Your task to perform on an android device: toggle priority inbox in the gmail app Image 0: 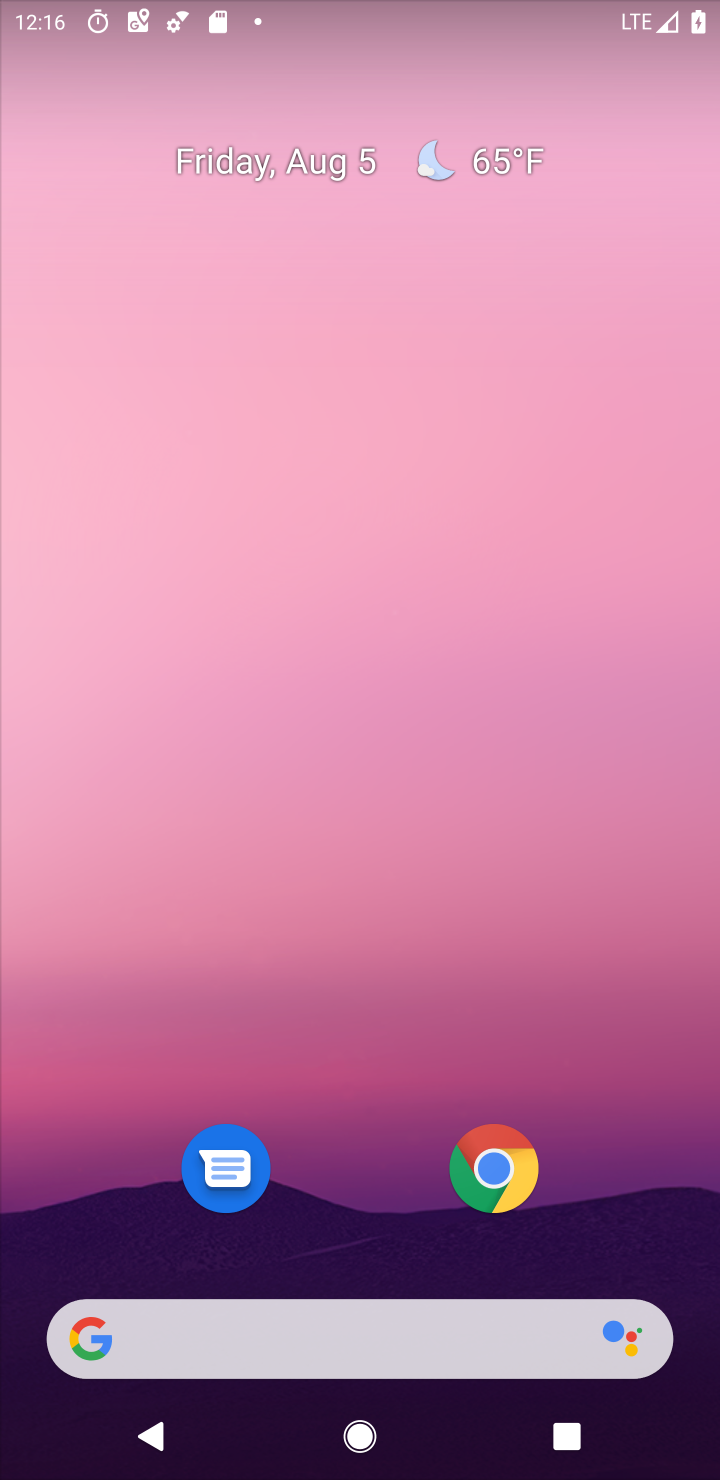
Step 0: drag from (327, 985) to (443, 6)
Your task to perform on an android device: toggle priority inbox in the gmail app Image 1: 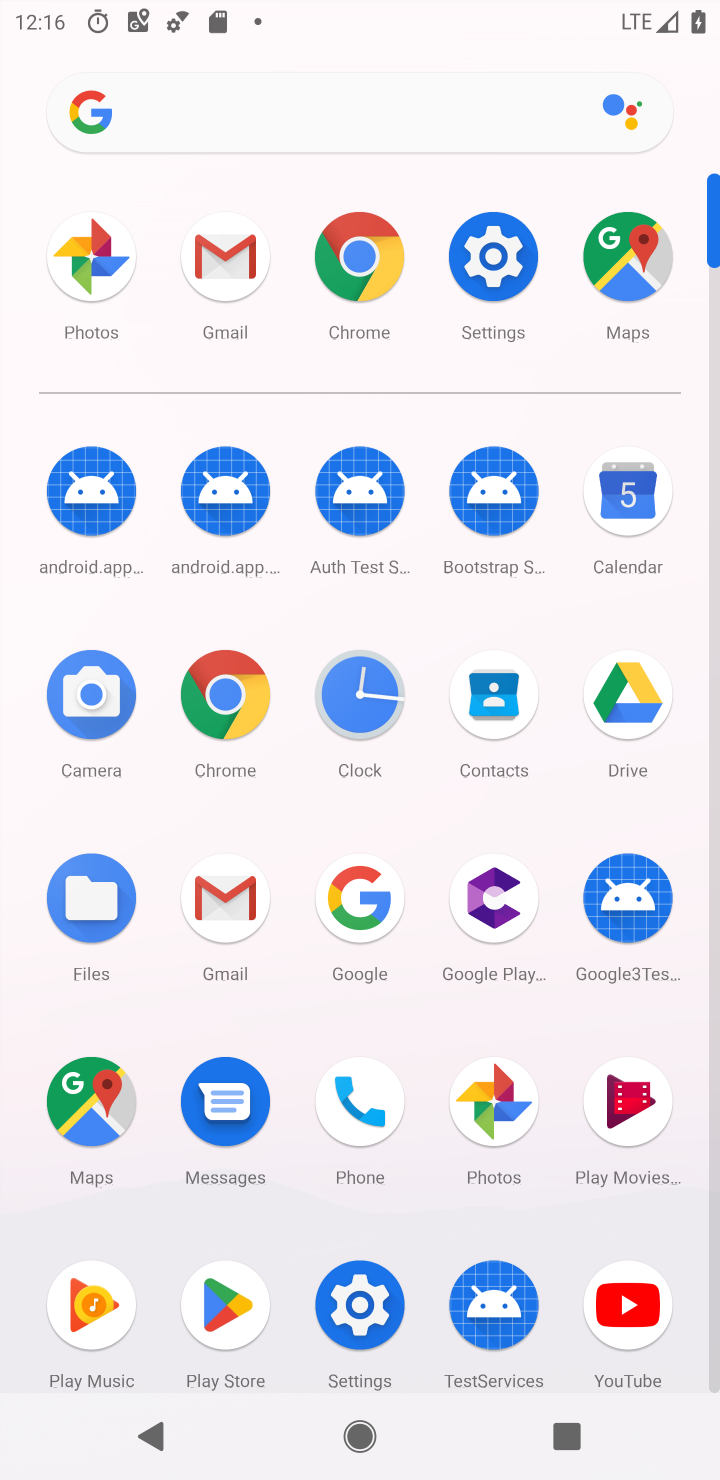
Step 1: click (205, 913)
Your task to perform on an android device: toggle priority inbox in the gmail app Image 2: 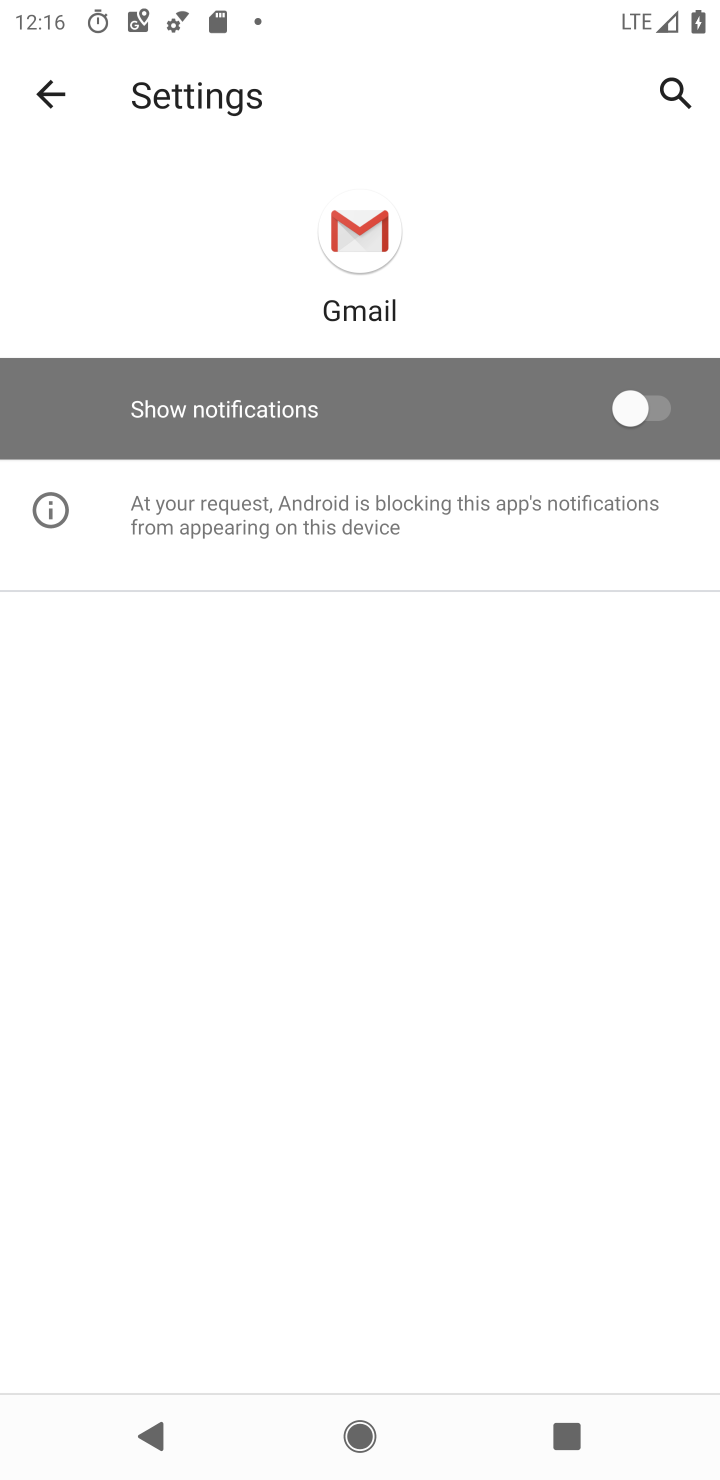
Step 2: click (40, 105)
Your task to perform on an android device: toggle priority inbox in the gmail app Image 3: 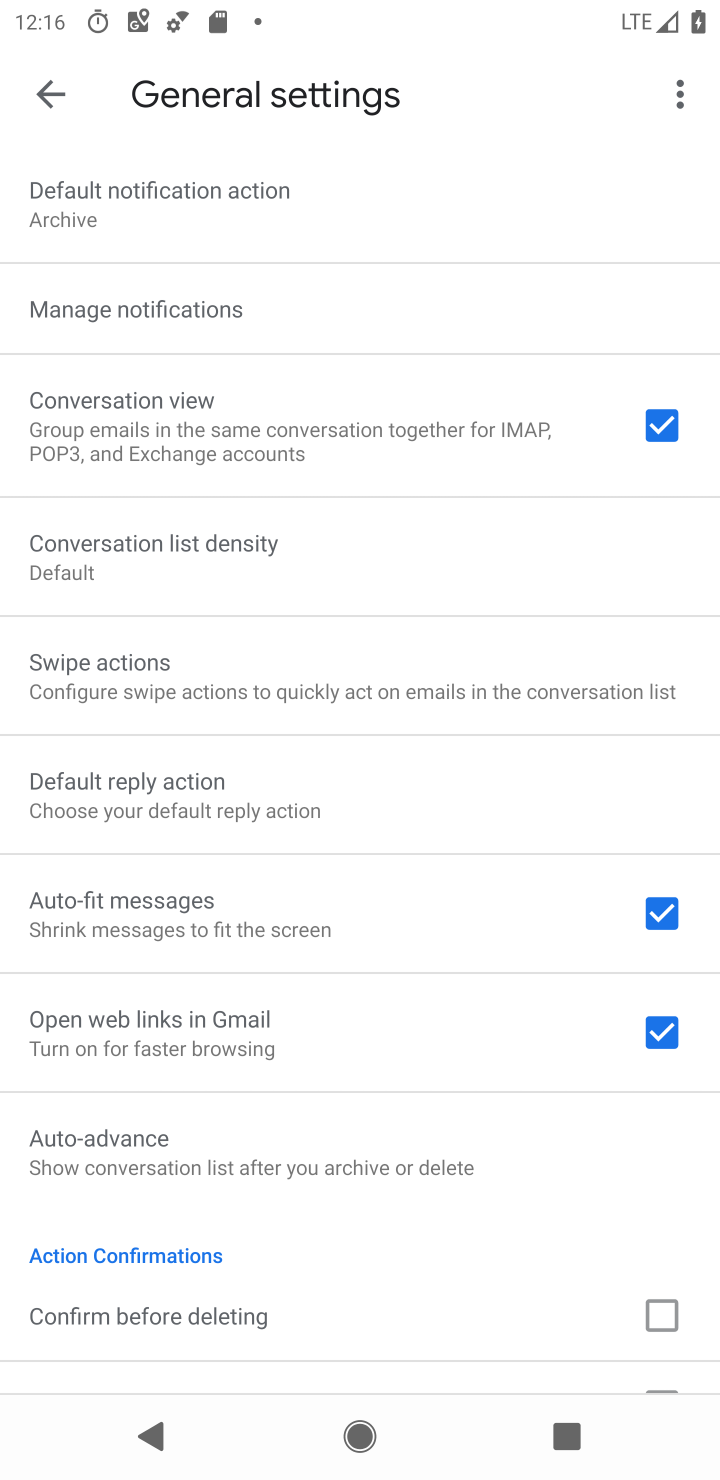
Step 3: click (57, 88)
Your task to perform on an android device: toggle priority inbox in the gmail app Image 4: 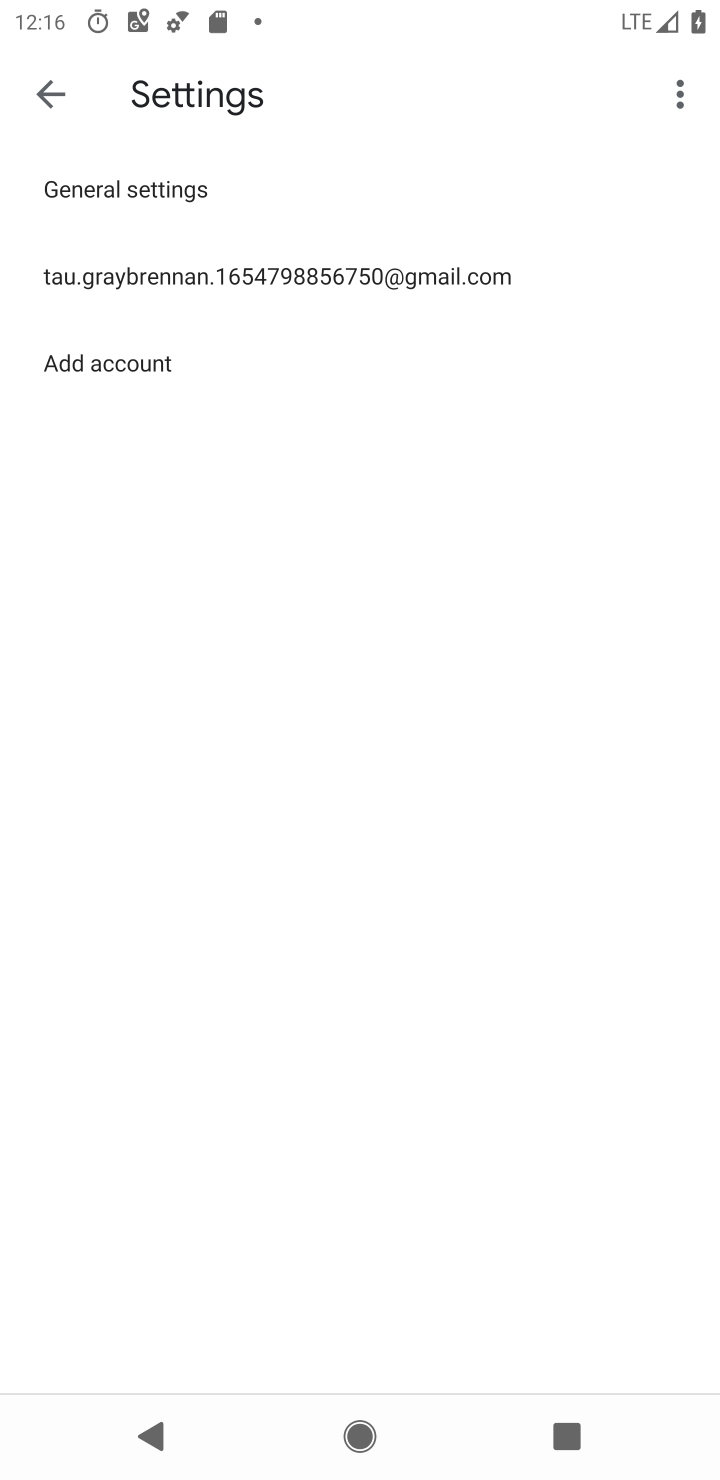
Step 4: click (326, 305)
Your task to perform on an android device: toggle priority inbox in the gmail app Image 5: 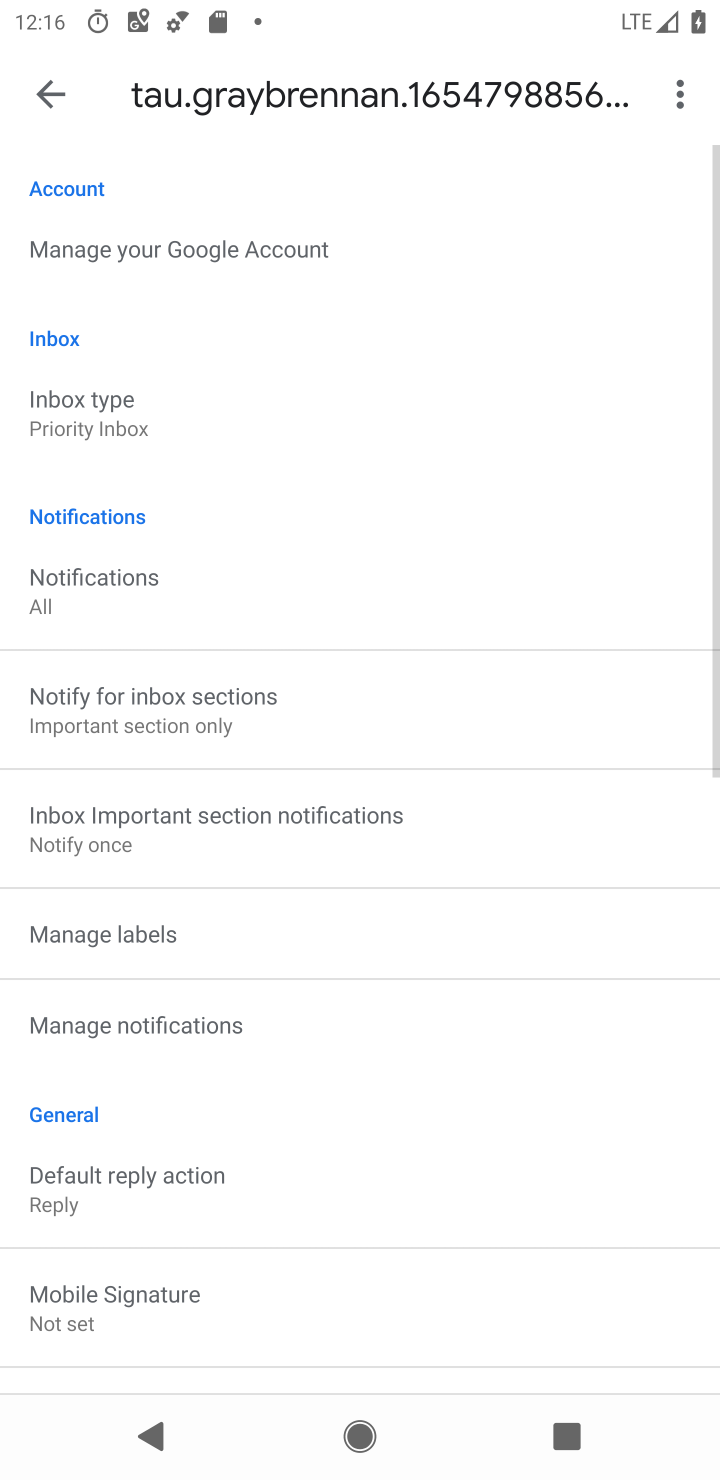
Step 5: click (78, 421)
Your task to perform on an android device: toggle priority inbox in the gmail app Image 6: 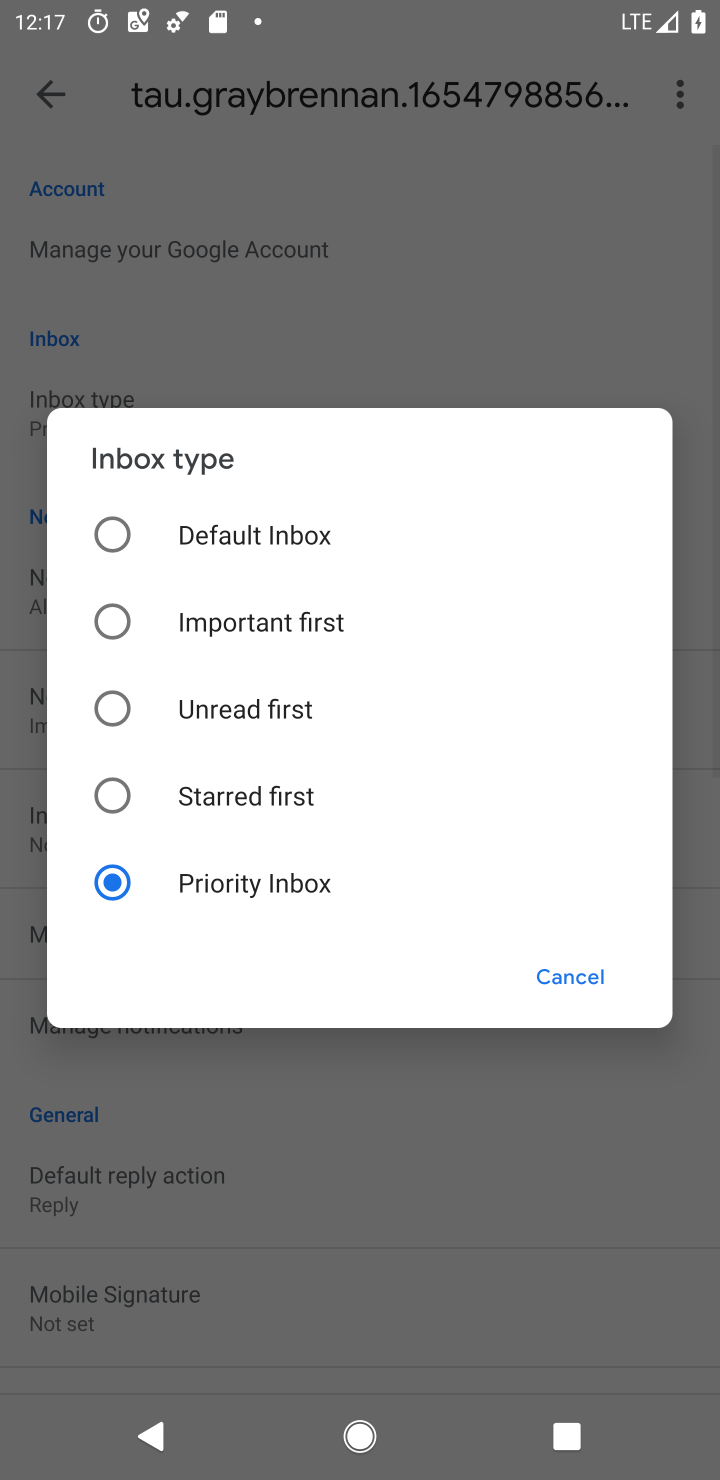
Step 6: click (241, 538)
Your task to perform on an android device: toggle priority inbox in the gmail app Image 7: 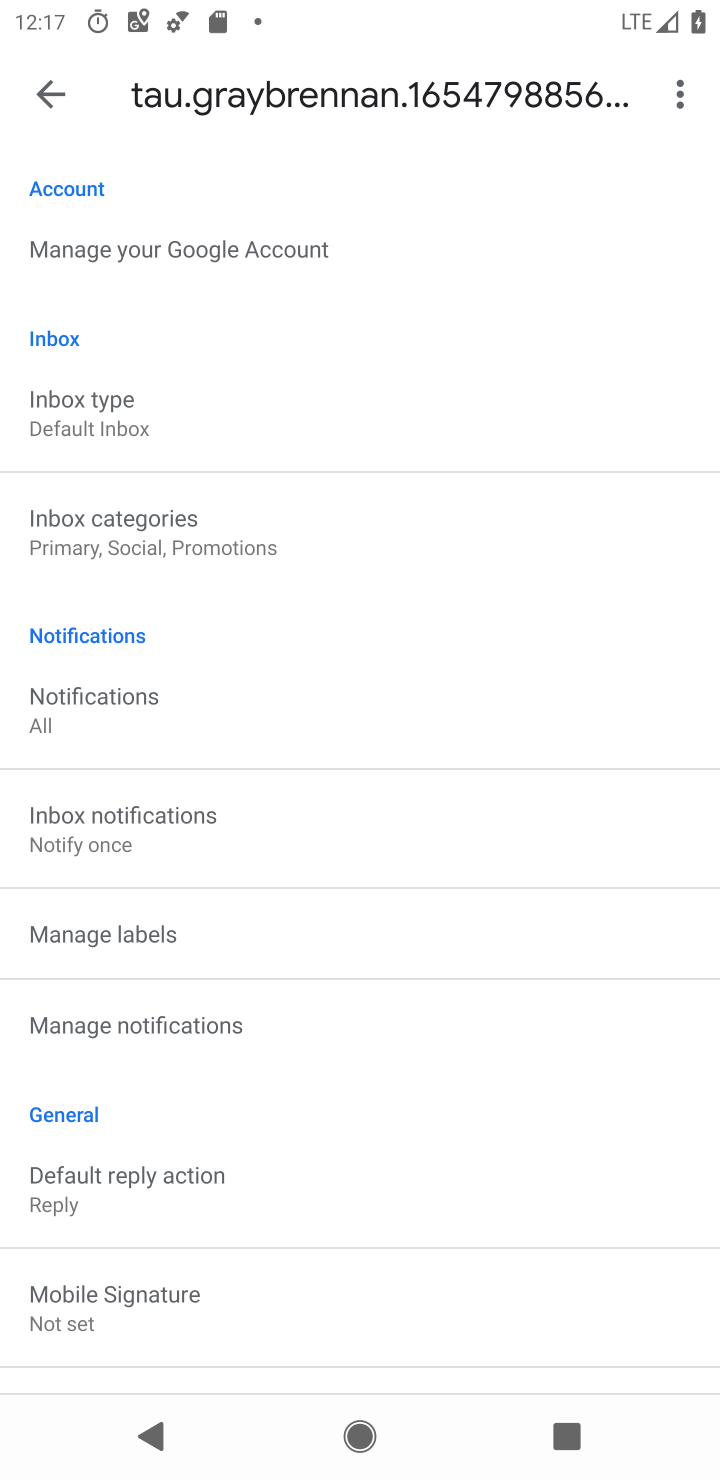
Step 7: task complete